Your task to perform on an android device: allow cookies in the chrome app Image 0: 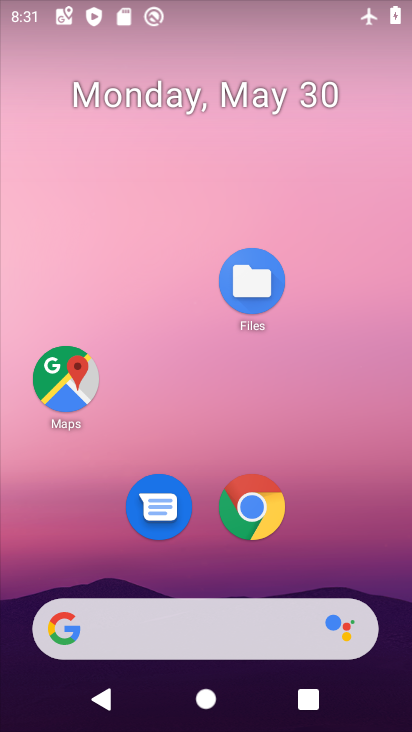
Step 0: click (261, 507)
Your task to perform on an android device: allow cookies in the chrome app Image 1: 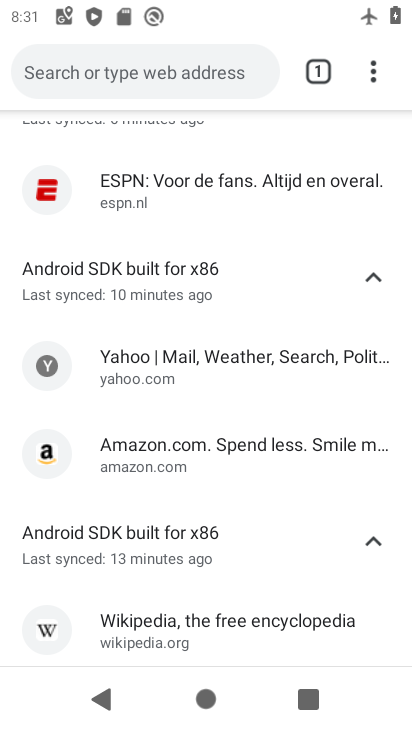
Step 1: click (379, 75)
Your task to perform on an android device: allow cookies in the chrome app Image 2: 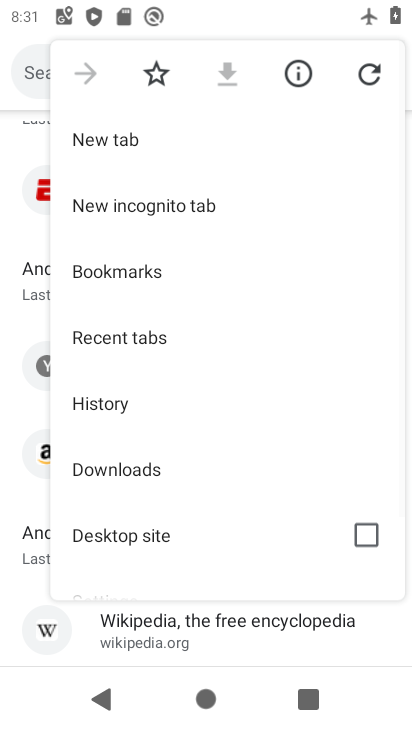
Step 2: drag from (169, 554) to (179, 467)
Your task to perform on an android device: allow cookies in the chrome app Image 3: 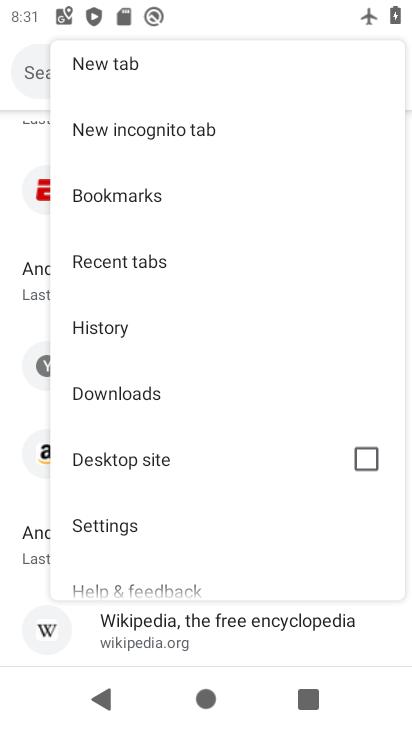
Step 3: click (108, 534)
Your task to perform on an android device: allow cookies in the chrome app Image 4: 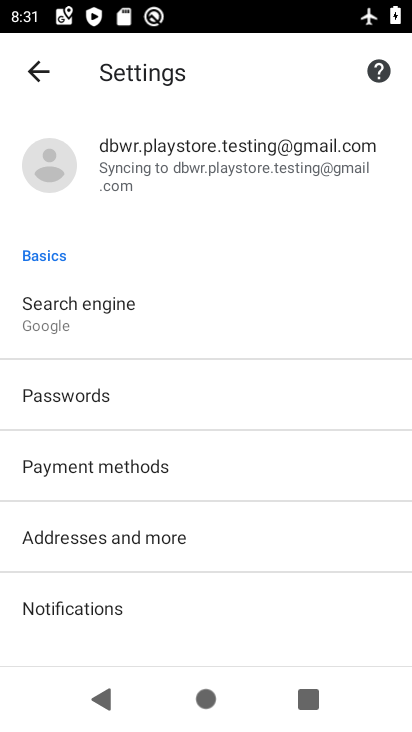
Step 4: drag from (134, 541) to (141, 297)
Your task to perform on an android device: allow cookies in the chrome app Image 5: 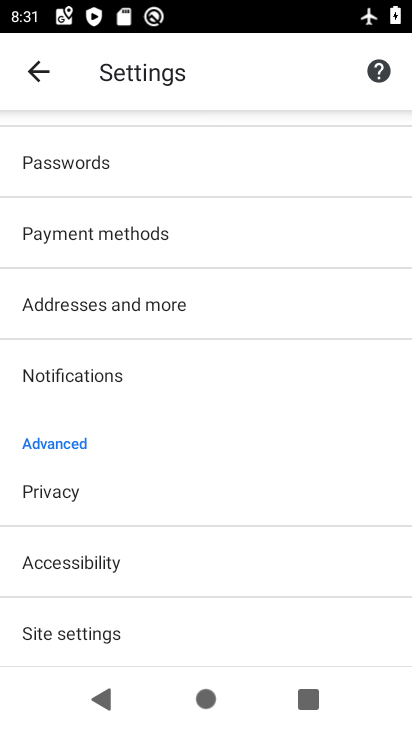
Step 5: click (102, 631)
Your task to perform on an android device: allow cookies in the chrome app Image 6: 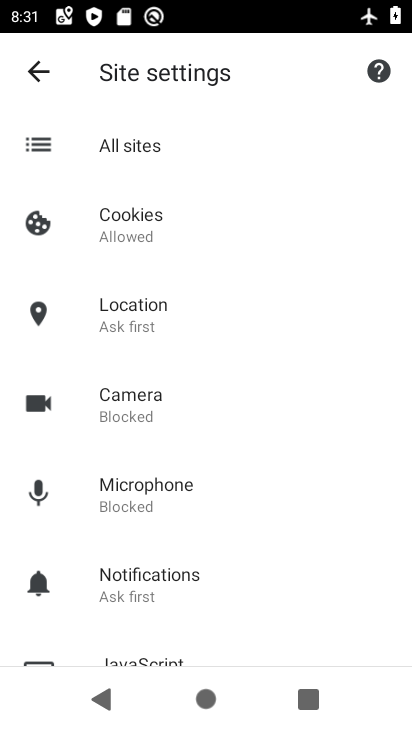
Step 6: click (145, 238)
Your task to perform on an android device: allow cookies in the chrome app Image 7: 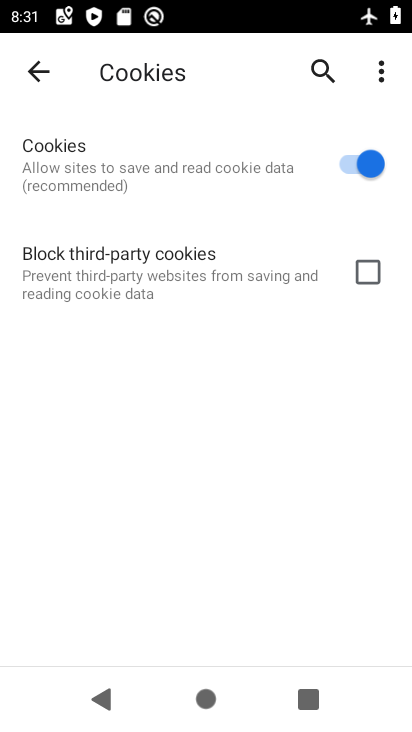
Step 7: task complete